Your task to perform on an android device: empty trash in the gmail app Image 0: 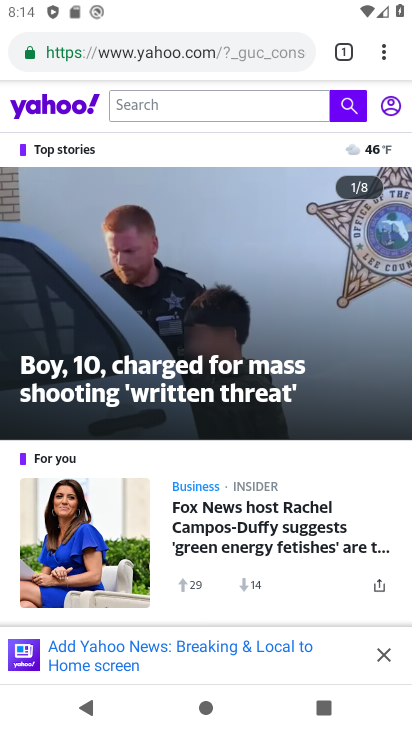
Step 0: press home button
Your task to perform on an android device: empty trash in the gmail app Image 1: 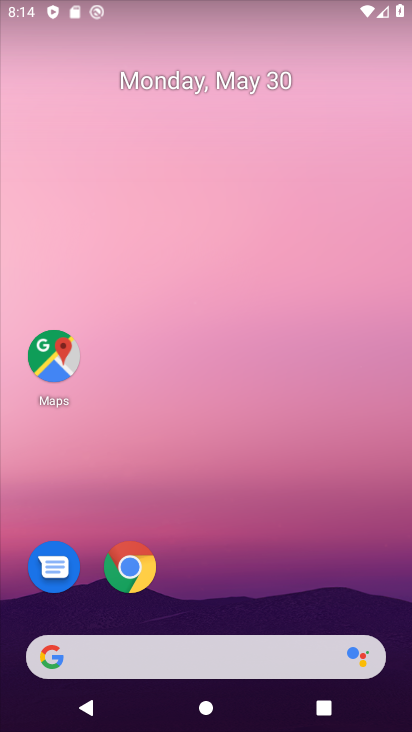
Step 1: drag from (211, 603) to (142, 37)
Your task to perform on an android device: empty trash in the gmail app Image 2: 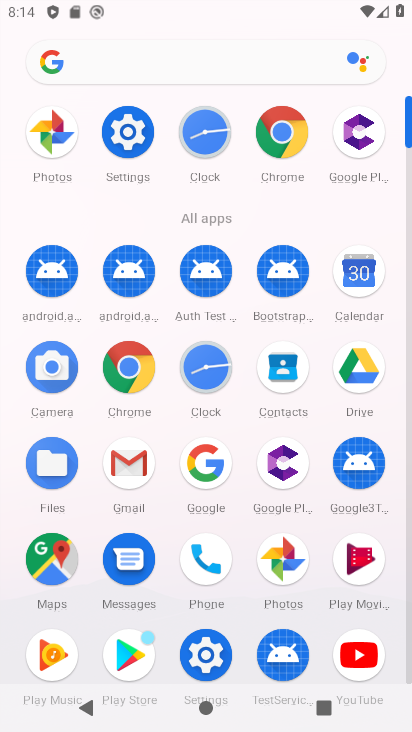
Step 2: click (118, 469)
Your task to perform on an android device: empty trash in the gmail app Image 3: 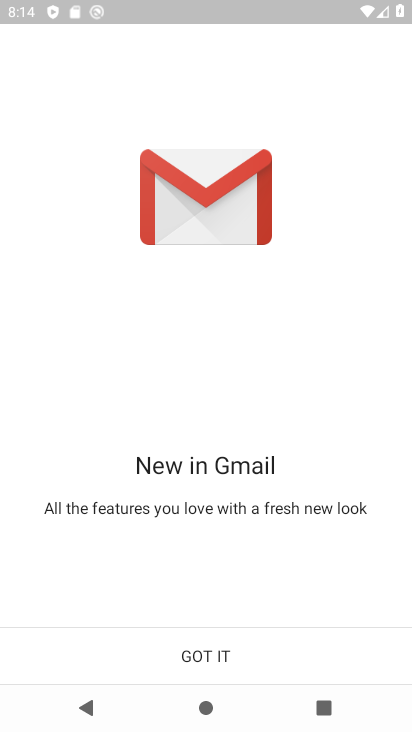
Step 3: click (178, 642)
Your task to perform on an android device: empty trash in the gmail app Image 4: 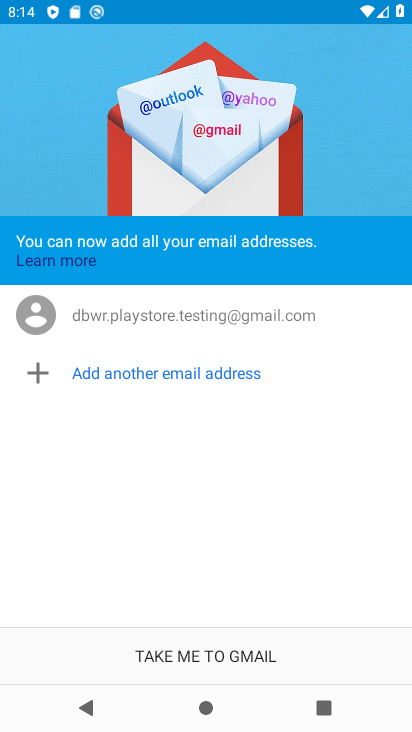
Step 4: click (178, 642)
Your task to perform on an android device: empty trash in the gmail app Image 5: 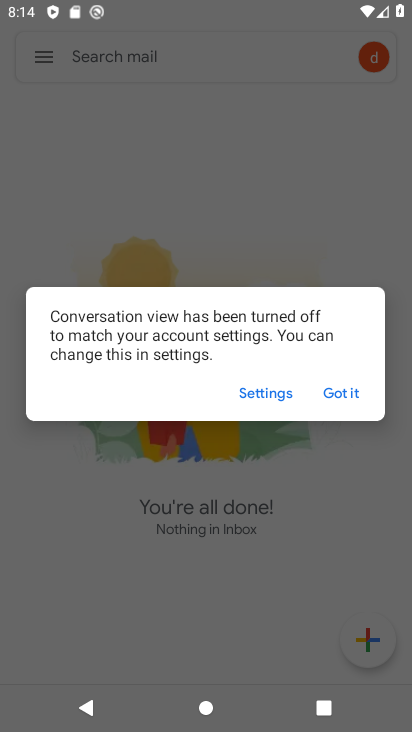
Step 5: click (358, 389)
Your task to perform on an android device: empty trash in the gmail app Image 6: 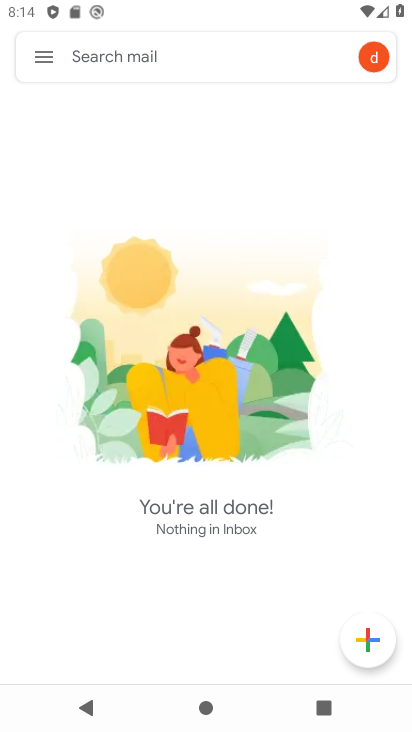
Step 6: click (42, 71)
Your task to perform on an android device: empty trash in the gmail app Image 7: 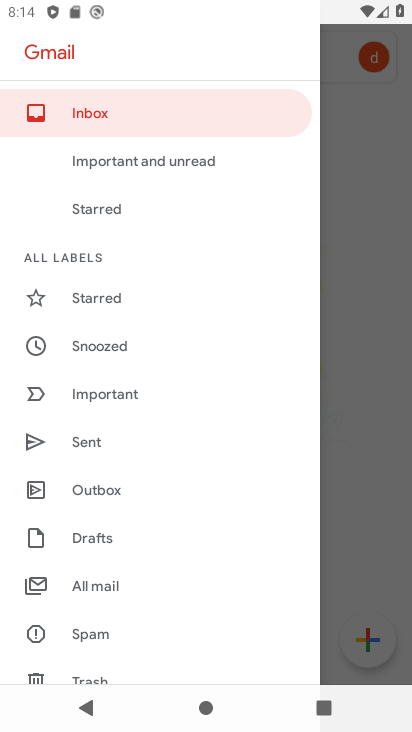
Step 7: click (93, 677)
Your task to perform on an android device: empty trash in the gmail app Image 8: 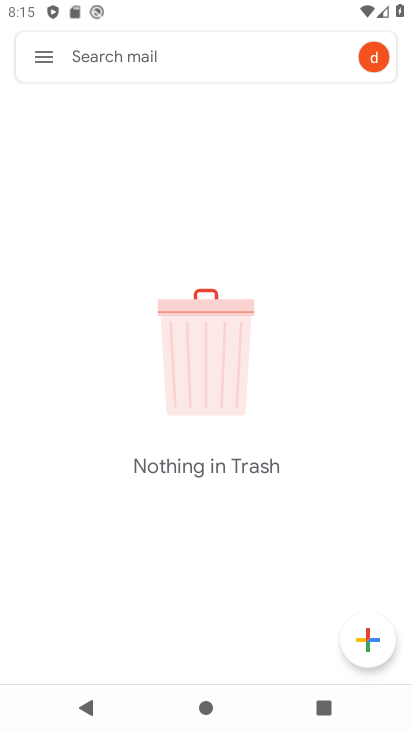
Step 8: task complete